Your task to perform on an android device: Check the weather Image 0: 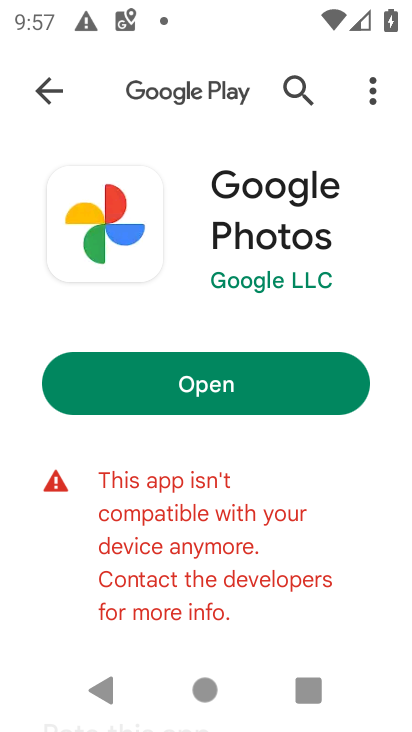
Step 0: press home button
Your task to perform on an android device: Check the weather Image 1: 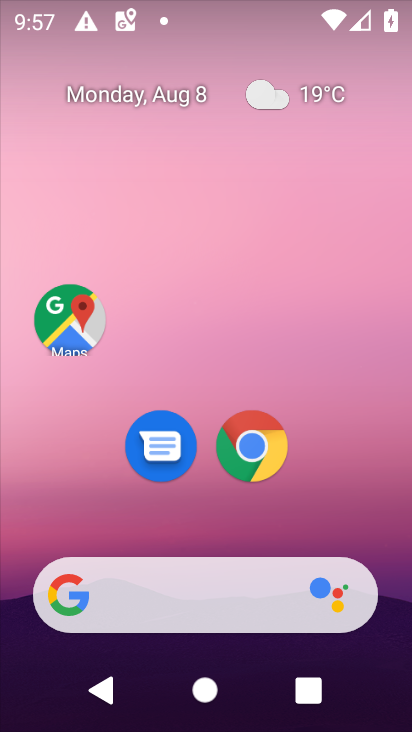
Step 1: click (315, 90)
Your task to perform on an android device: Check the weather Image 2: 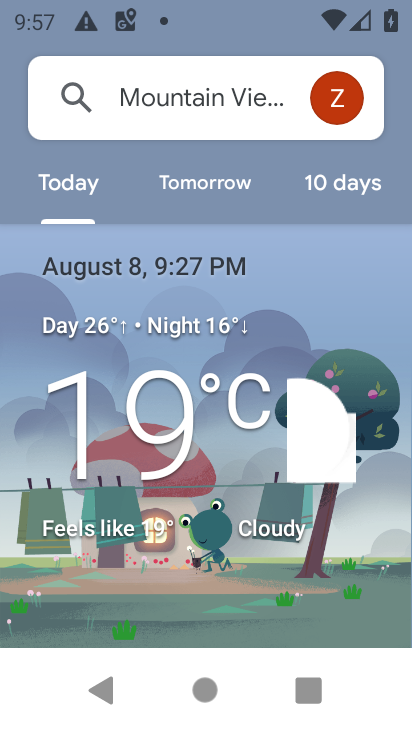
Step 2: task complete